Your task to perform on an android device: Show me the best basketball shoes on Nike.com Image 0: 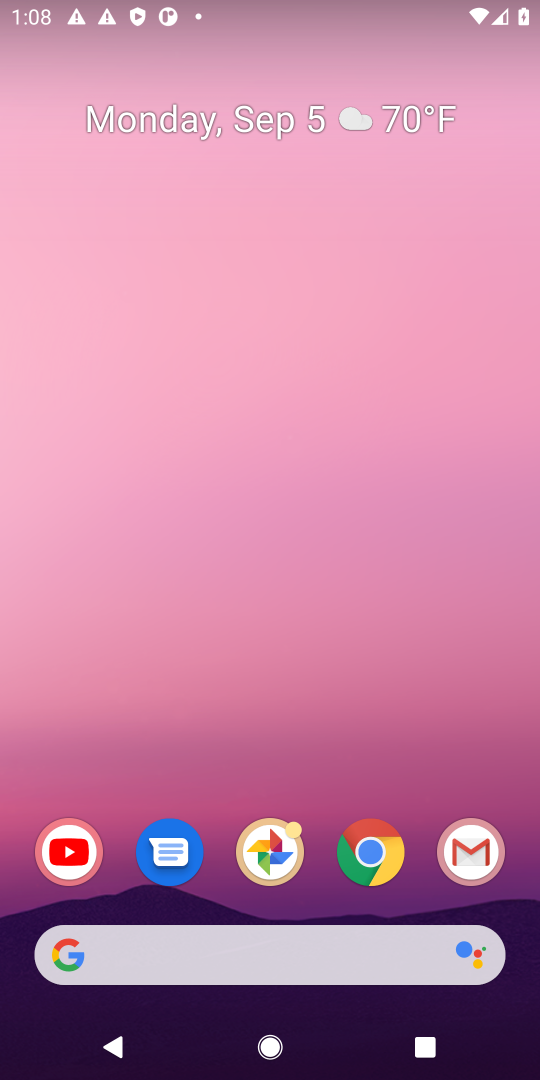
Step 0: click (368, 846)
Your task to perform on an android device: Show me the best basketball shoes on Nike.com Image 1: 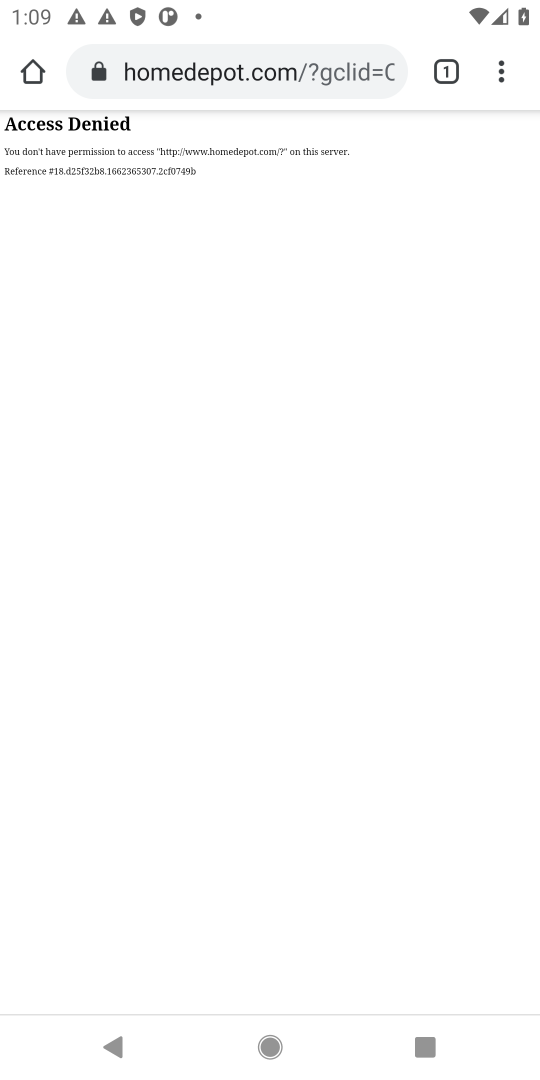
Step 1: click (299, 50)
Your task to perform on an android device: Show me the best basketball shoes on Nike.com Image 2: 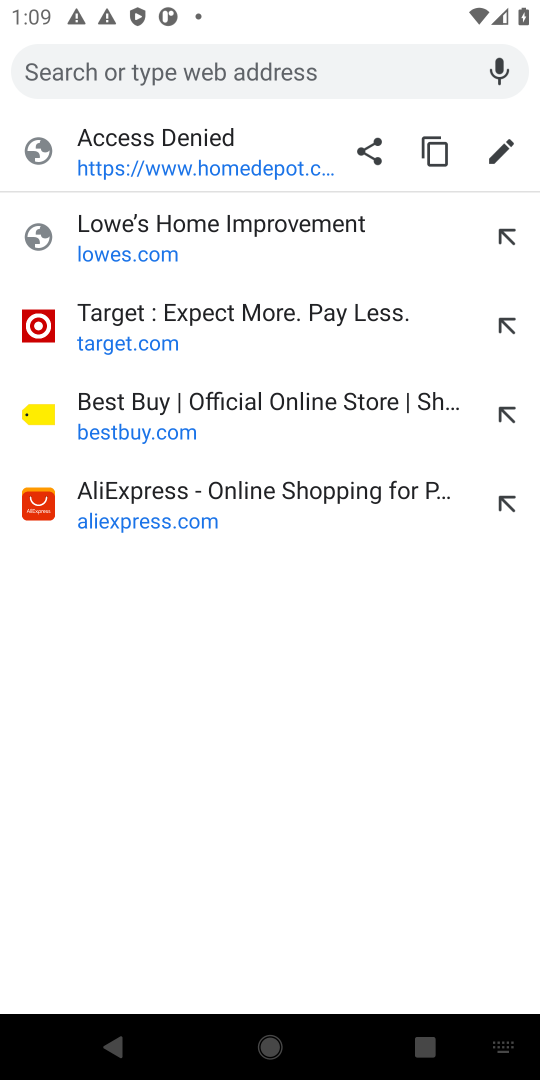
Step 2: type "NIKE.com"
Your task to perform on an android device: Show me the best basketball shoes on Nike.com Image 3: 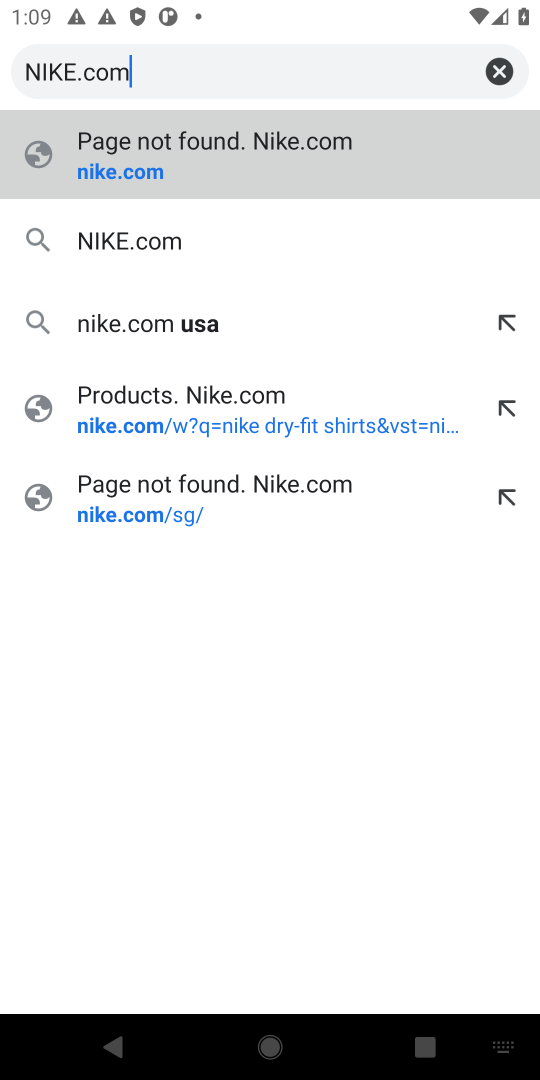
Step 3: click (113, 239)
Your task to perform on an android device: Show me the best basketball shoes on Nike.com Image 4: 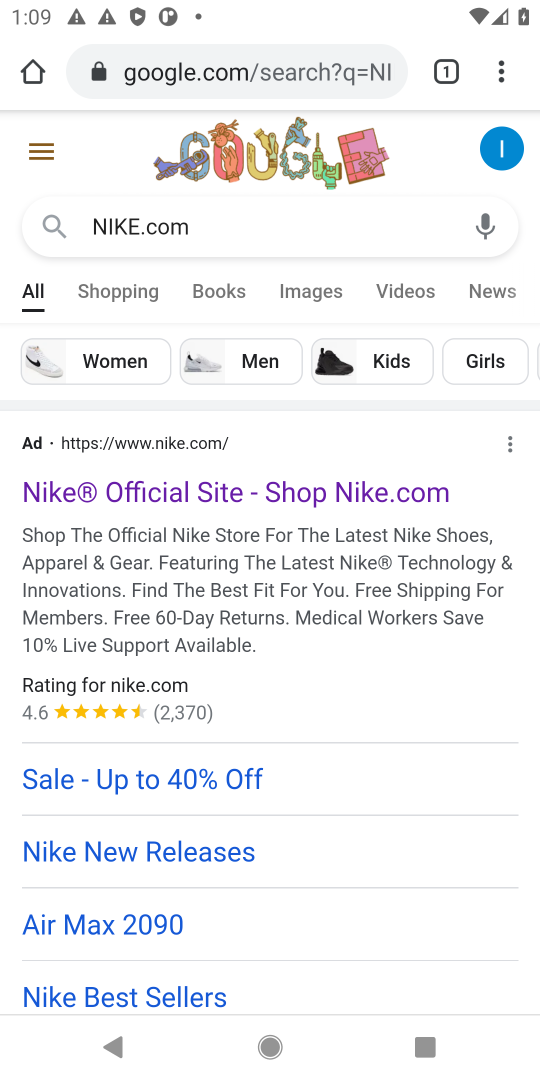
Step 4: click (163, 494)
Your task to perform on an android device: Show me the best basketball shoes on Nike.com Image 5: 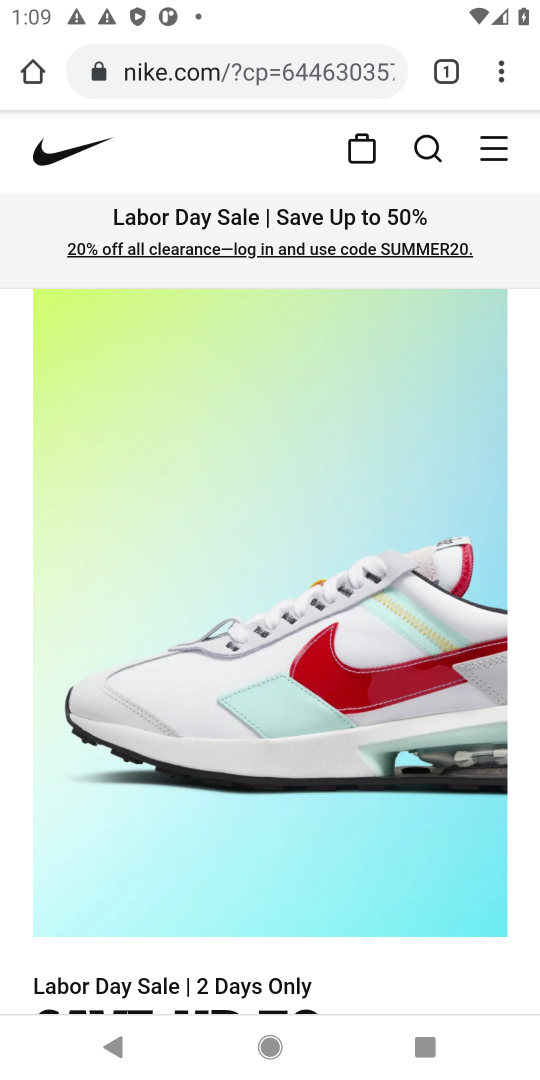
Step 5: drag from (366, 973) to (318, 164)
Your task to perform on an android device: Show me the best basketball shoes on Nike.com Image 6: 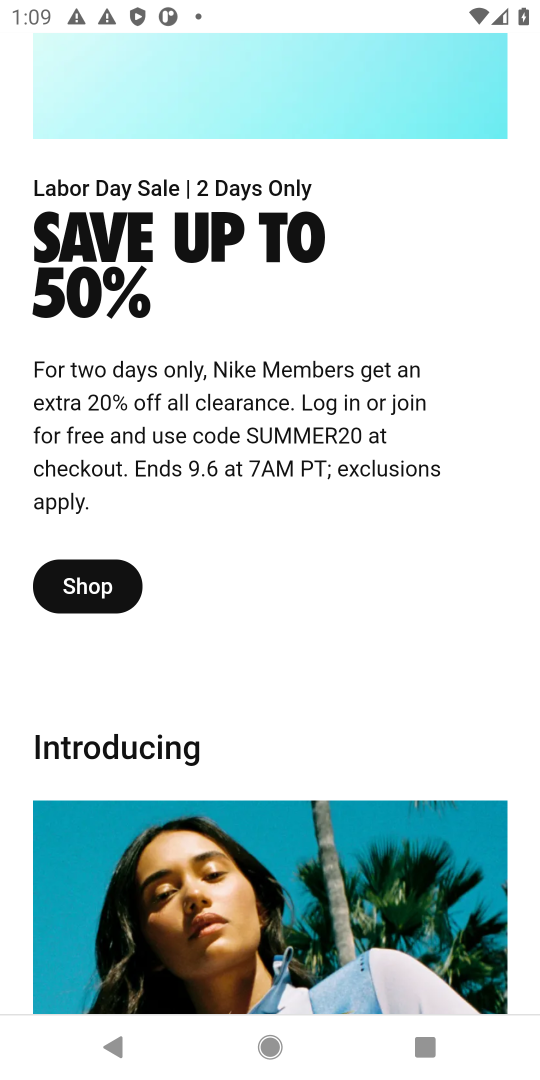
Step 6: drag from (325, 247) to (340, 889)
Your task to perform on an android device: Show me the best basketball shoes on Nike.com Image 7: 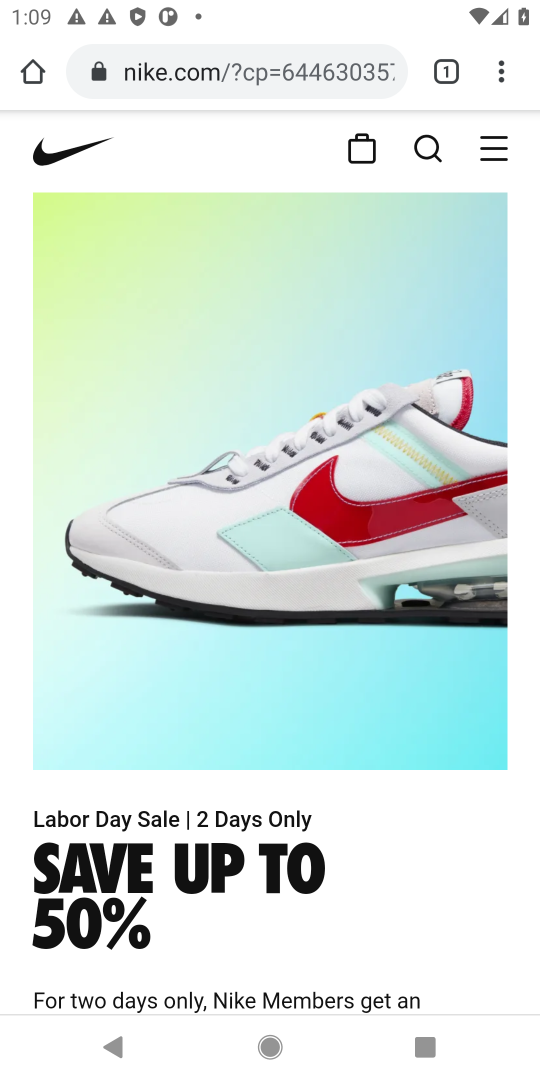
Step 7: click (422, 143)
Your task to perform on an android device: Show me the best basketball shoes on Nike.com Image 8: 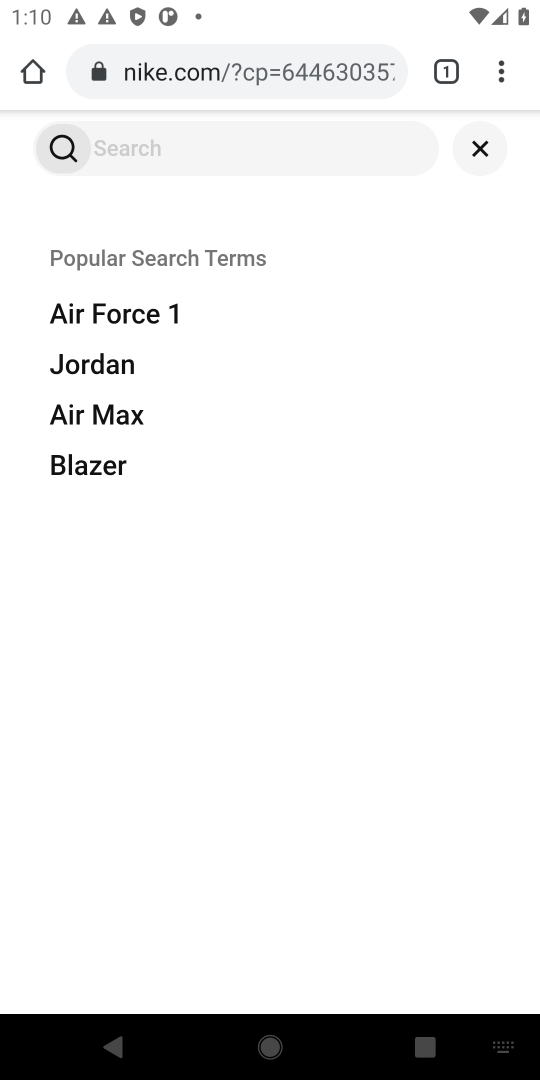
Step 8: type "basketball shoes"
Your task to perform on an android device: Show me the best basketball shoes on Nike.com Image 9: 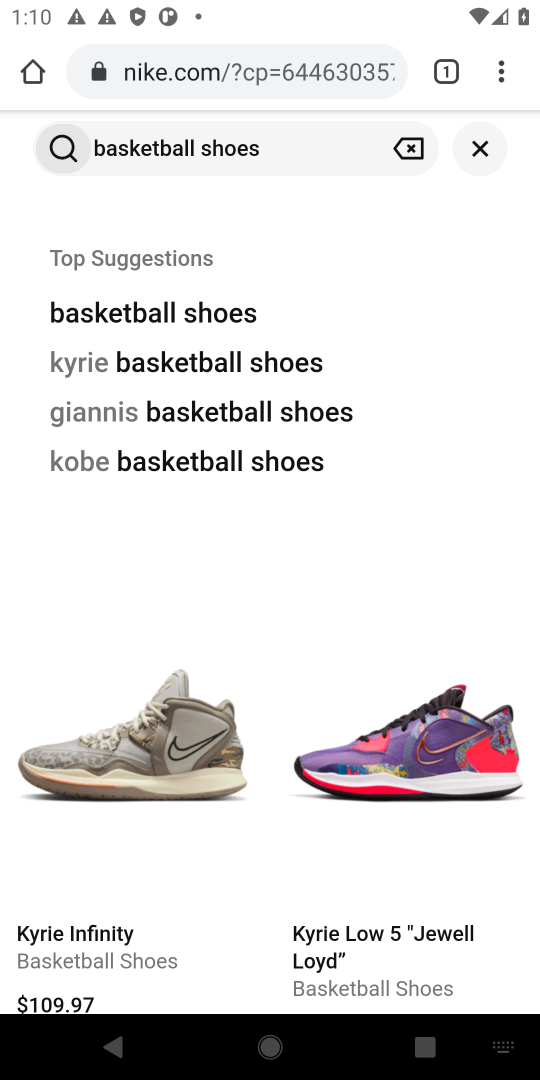
Step 9: click (107, 300)
Your task to perform on an android device: Show me the best basketball shoes on Nike.com Image 10: 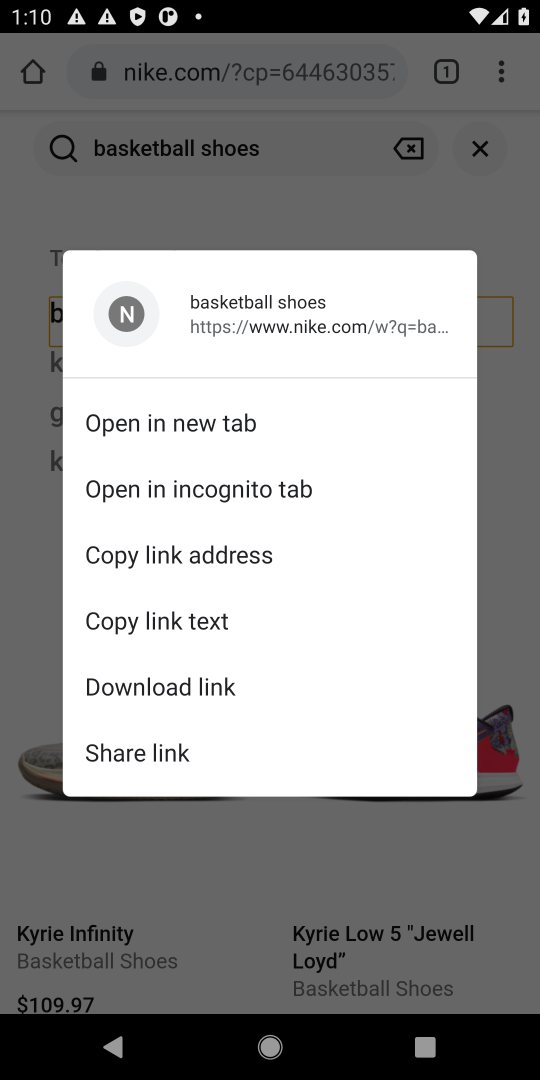
Step 10: click (48, 180)
Your task to perform on an android device: Show me the best basketball shoes on Nike.com Image 11: 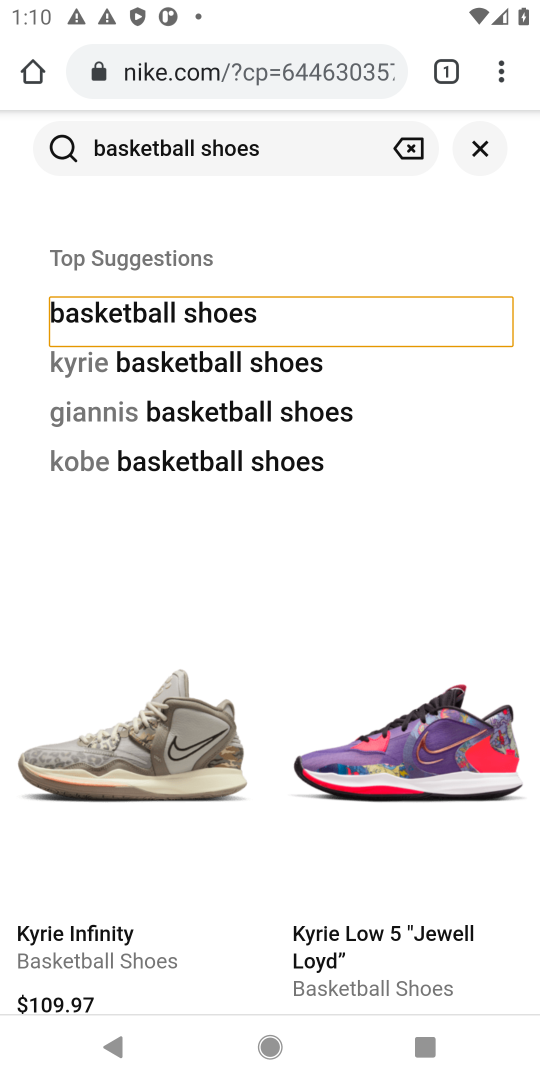
Step 11: click (61, 152)
Your task to perform on an android device: Show me the best basketball shoes on Nike.com Image 12: 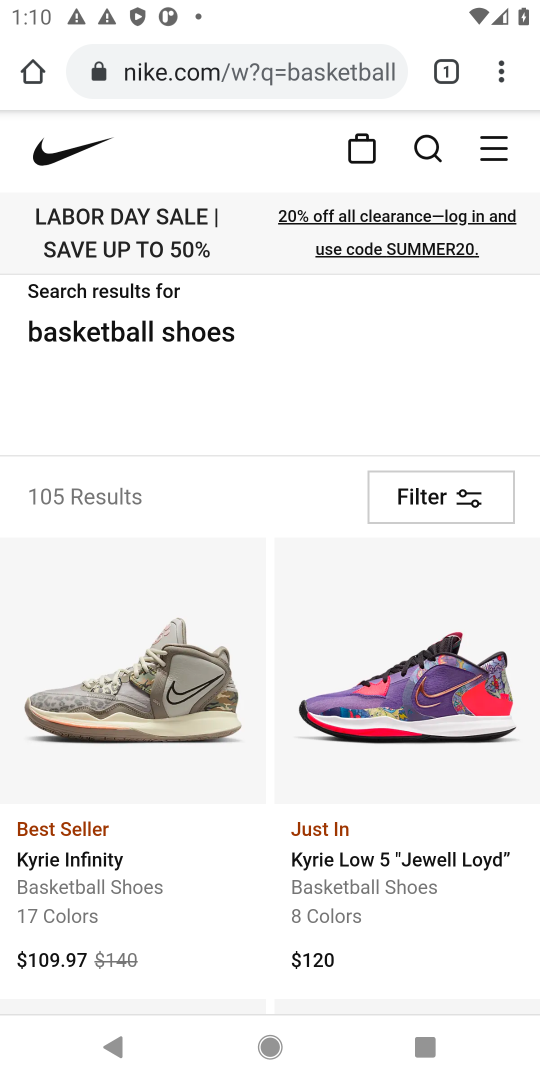
Step 12: drag from (247, 707) to (241, 368)
Your task to perform on an android device: Show me the best basketball shoes on Nike.com Image 13: 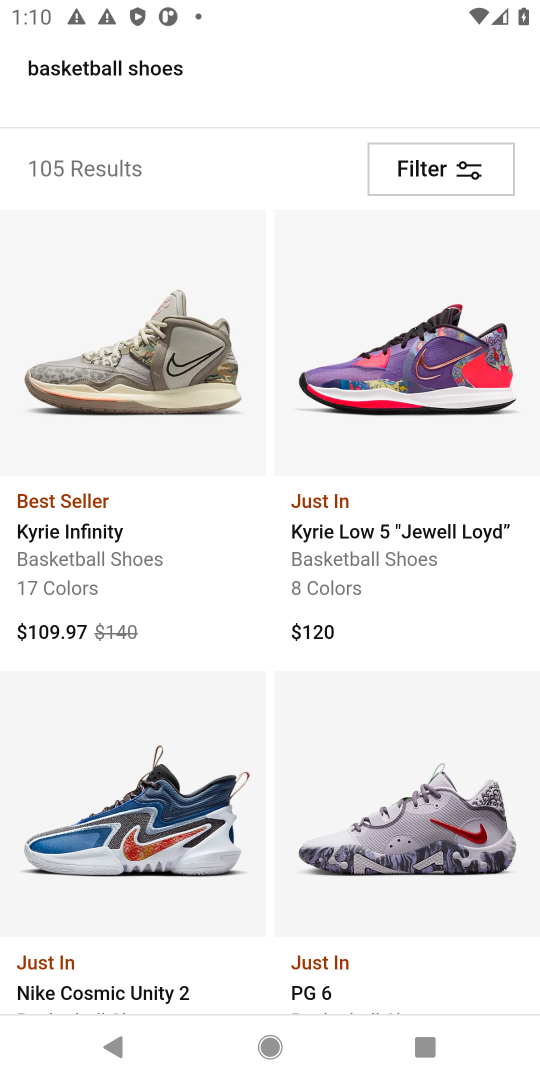
Step 13: drag from (269, 675) to (266, 282)
Your task to perform on an android device: Show me the best basketball shoes on Nike.com Image 14: 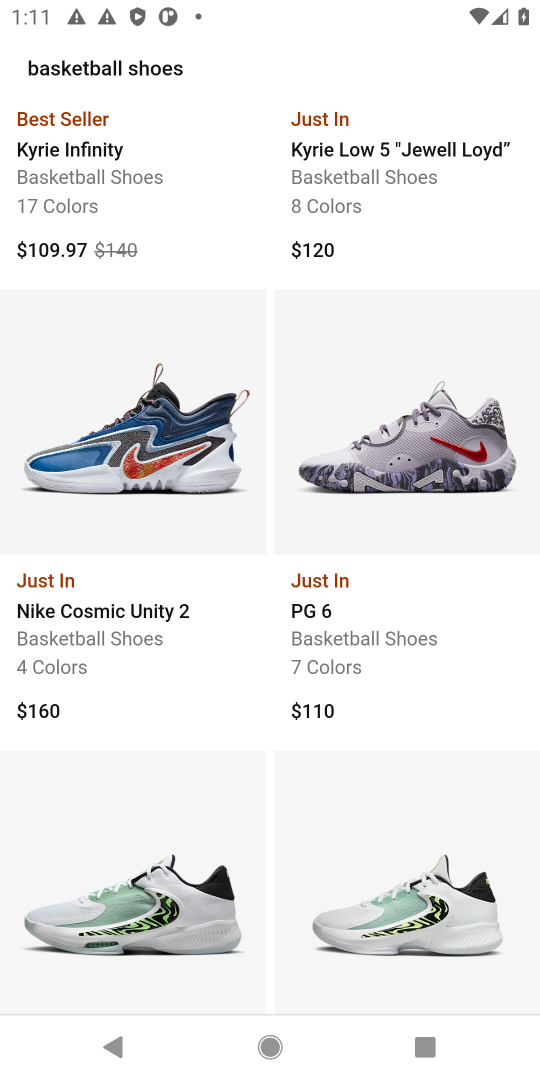
Step 14: drag from (267, 999) to (259, 505)
Your task to perform on an android device: Show me the best basketball shoes on Nike.com Image 15: 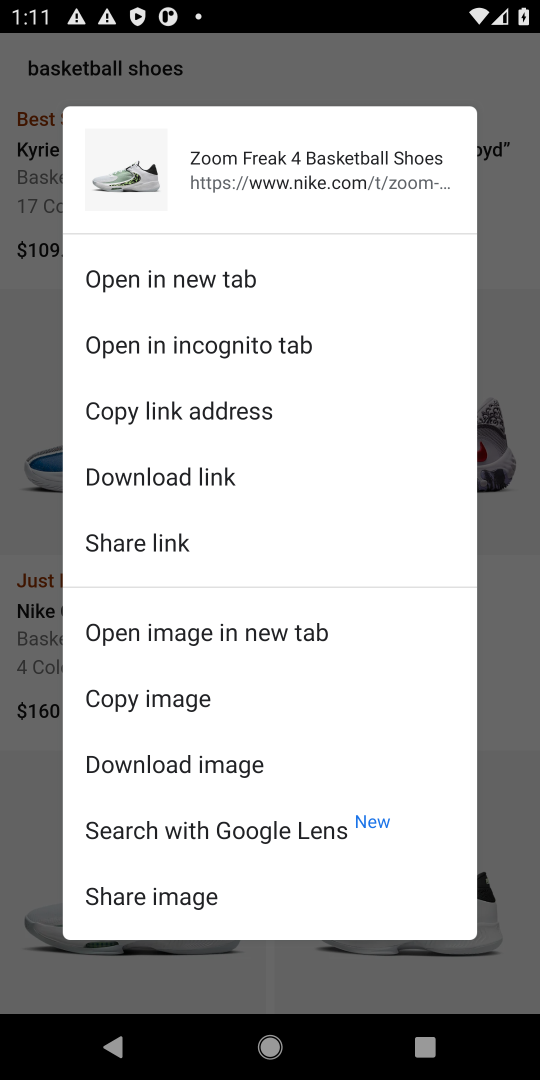
Step 15: click (31, 535)
Your task to perform on an android device: Show me the best basketball shoes on Nike.com Image 16: 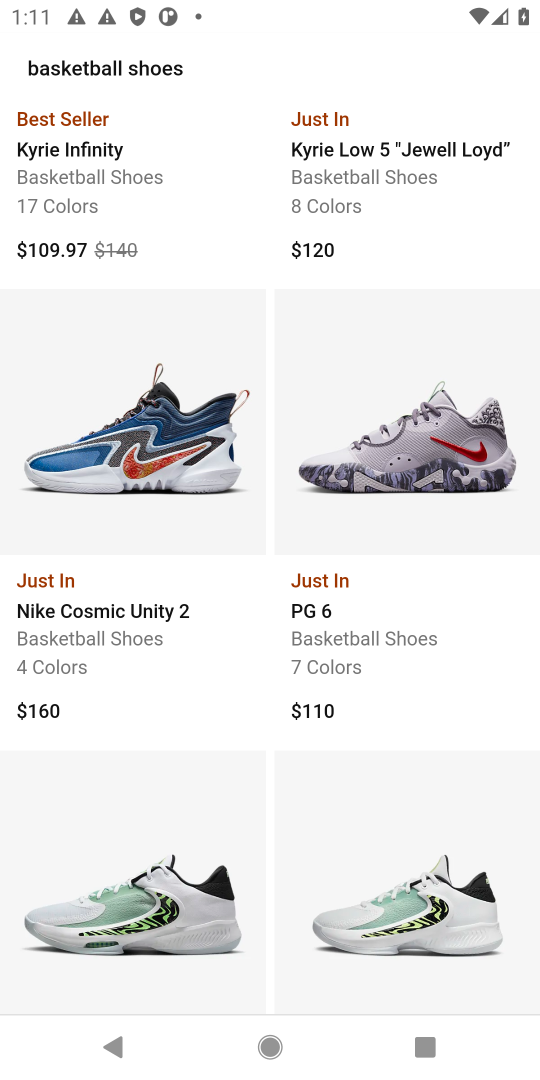
Step 16: task complete